Your task to perform on an android device: see sites visited before in the chrome app Image 0: 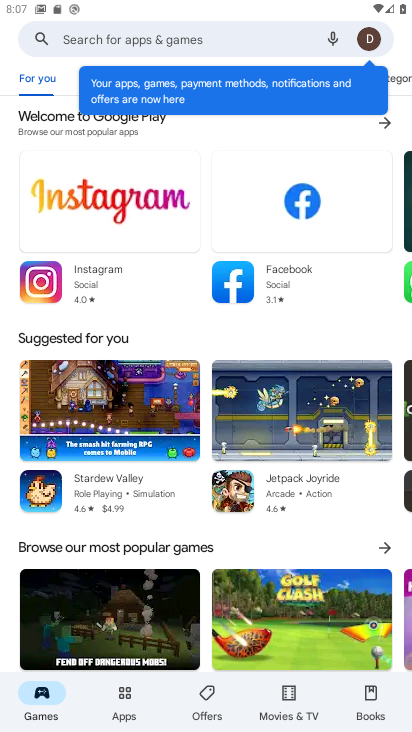
Step 0: press home button
Your task to perform on an android device: see sites visited before in the chrome app Image 1: 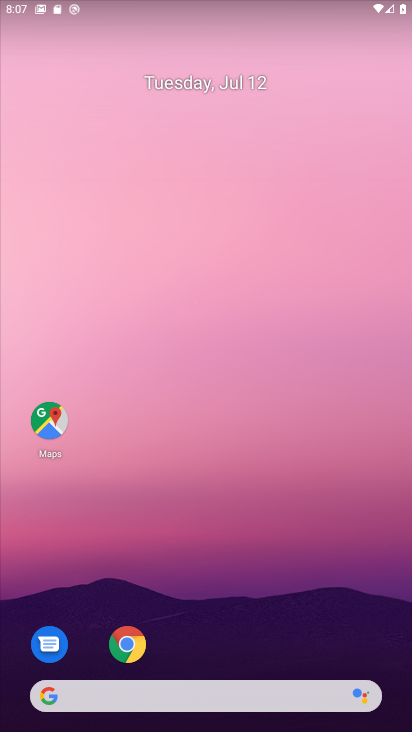
Step 1: drag from (292, 599) to (398, 1)
Your task to perform on an android device: see sites visited before in the chrome app Image 2: 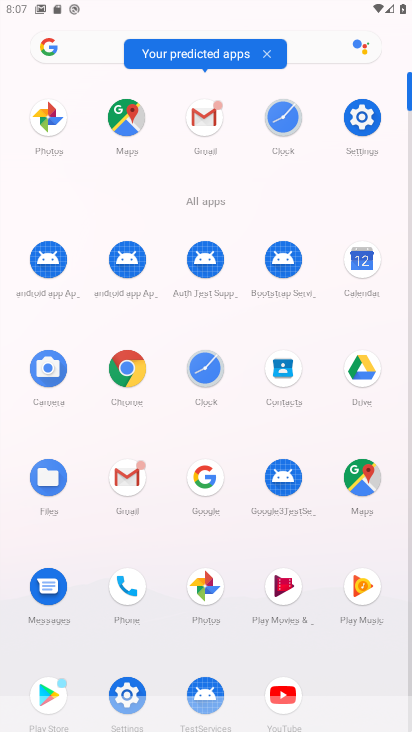
Step 2: click (124, 364)
Your task to perform on an android device: see sites visited before in the chrome app Image 3: 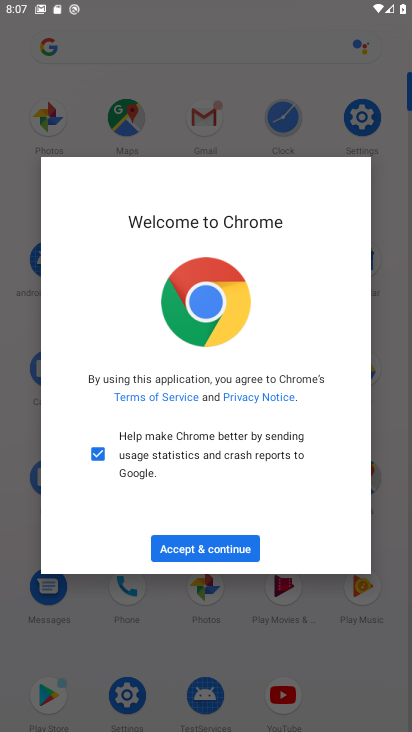
Step 3: click (203, 542)
Your task to perform on an android device: see sites visited before in the chrome app Image 4: 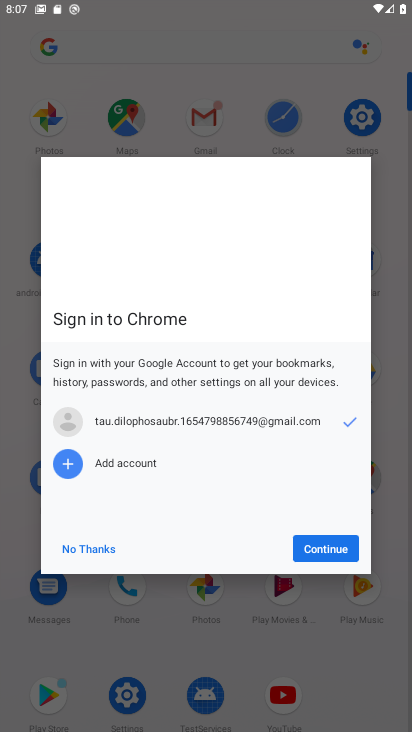
Step 4: click (100, 552)
Your task to perform on an android device: see sites visited before in the chrome app Image 5: 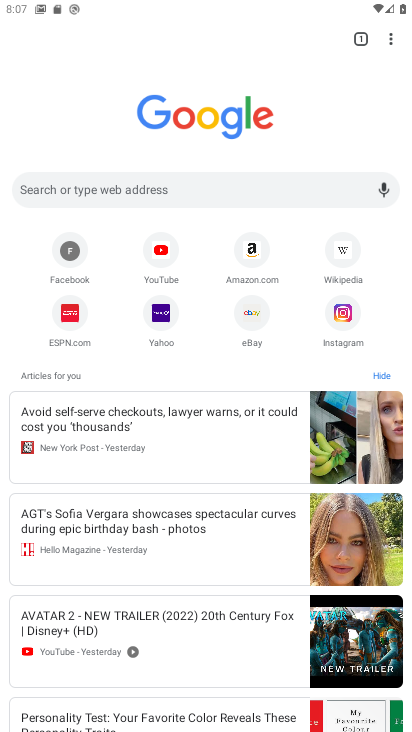
Step 5: drag from (397, 50) to (281, 186)
Your task to perform on an android device: see sites visited before in the chrome app Image 6: 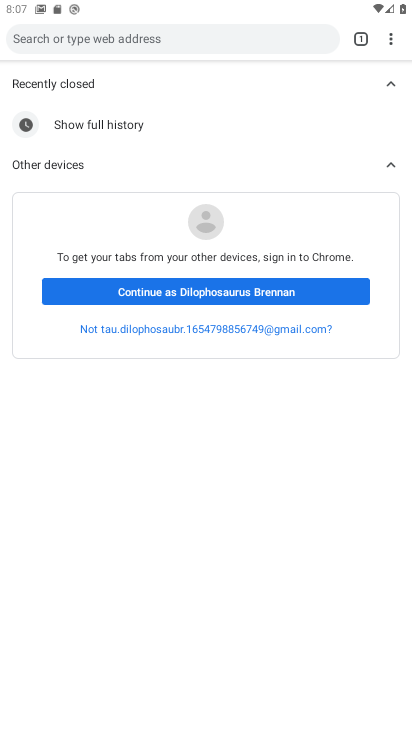
Step 6: click (231, 301)
Your task to perform on an android device: see sites visited before in the chrome app Image 7: 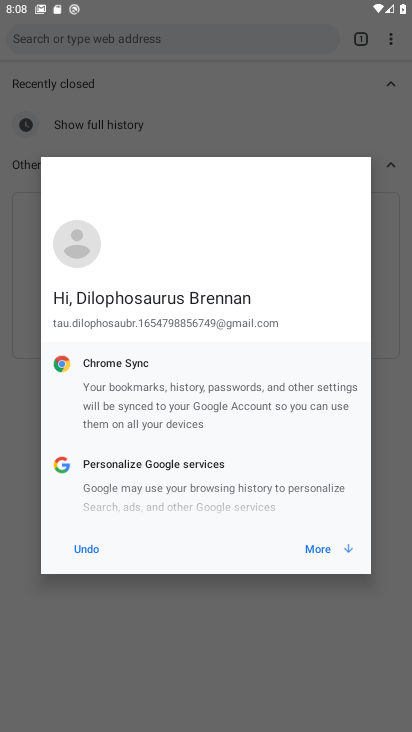
Step 7: click (324, 548)
Your task to perform on an android device: see sites visited before in the chrome app Image 8: 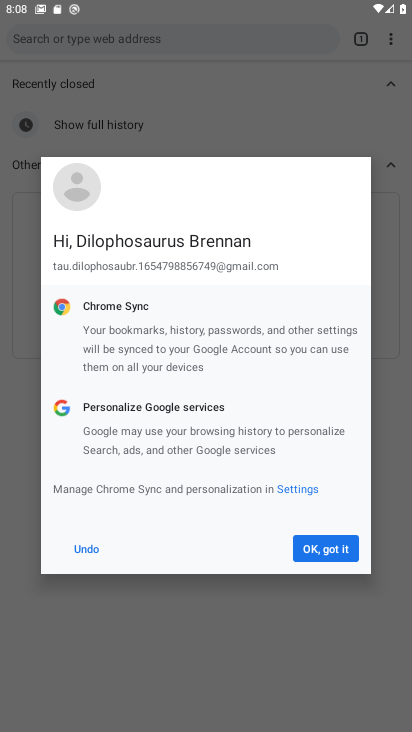
Step 8: click (317, 555)
Your task to perform on an android device: see sites visited before in the chrome app Image 9: 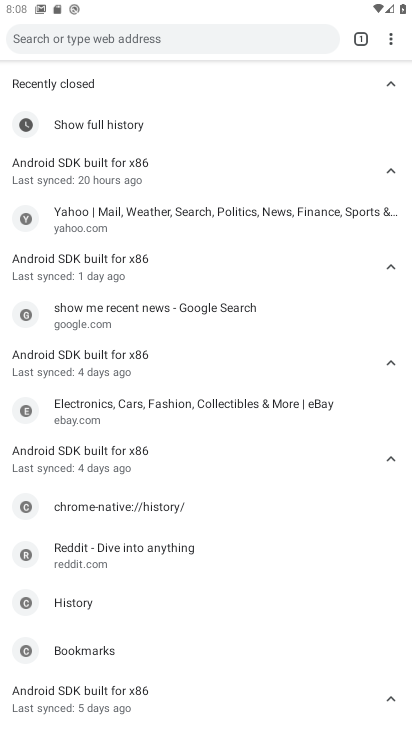
Step 9: task complete